Your task to perform on an android device: empty trash in google photos Image 0: 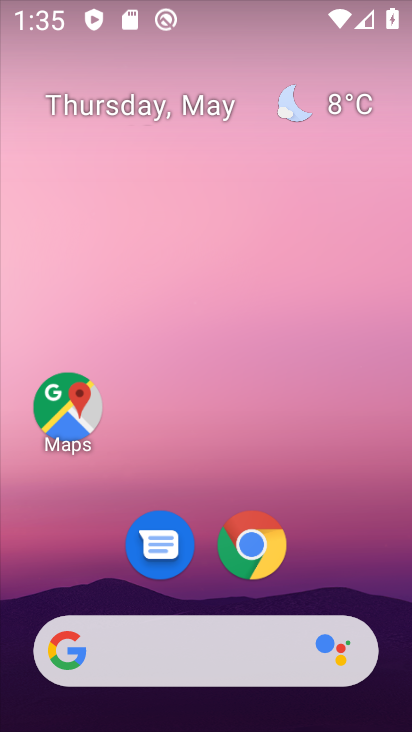
Step 0: drag from (392, 618) to (300, 86)
Your task to perform on an android device: empty trash in google photos Image 1: 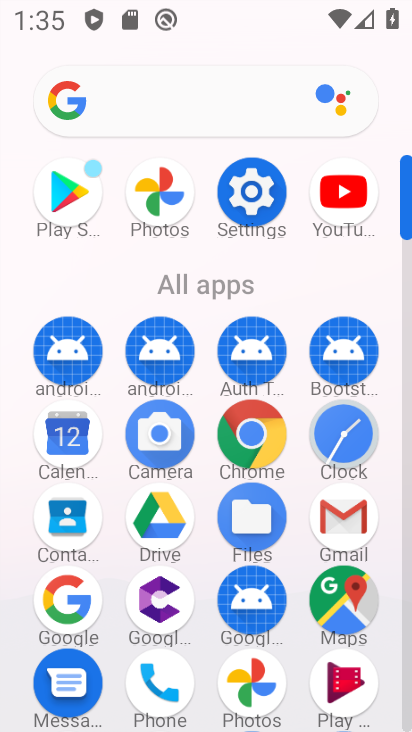
Step 1: click (410, 694)
Your task to perform on an android device: empty trash in google photos Image 2: 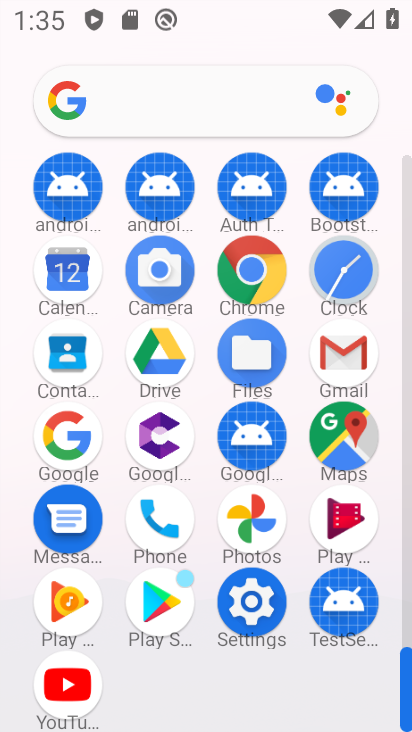
Step 2: click (255, 513)
Your task to perform on an android device: empty trash in google photos Image 3: 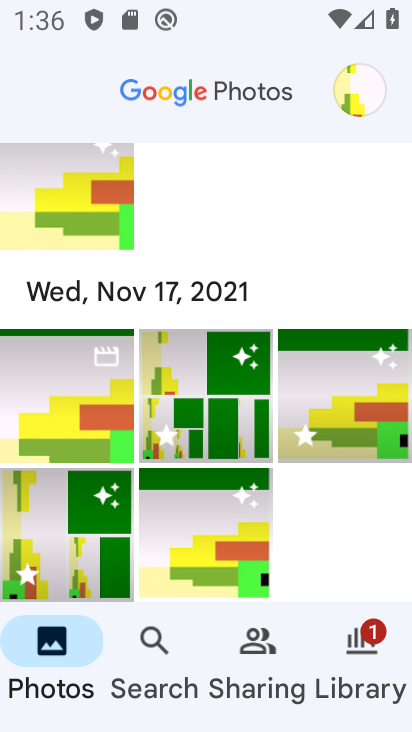
Step 3: click (362, 643)
Your task to perform on an android device: empty trash in google photos Image 4: 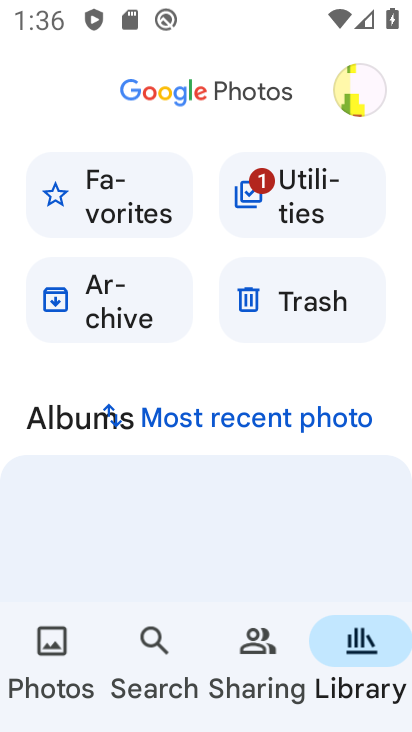
Step 4: click (274, 292)
Your task to perform on an android device: empty trash in google photos Image 5: 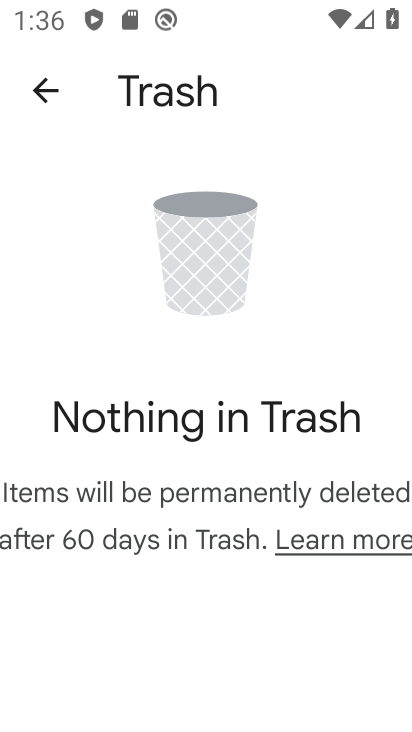
Step 5: task complete